Your task to perform on an android device: Open ESPN.com Image 0: 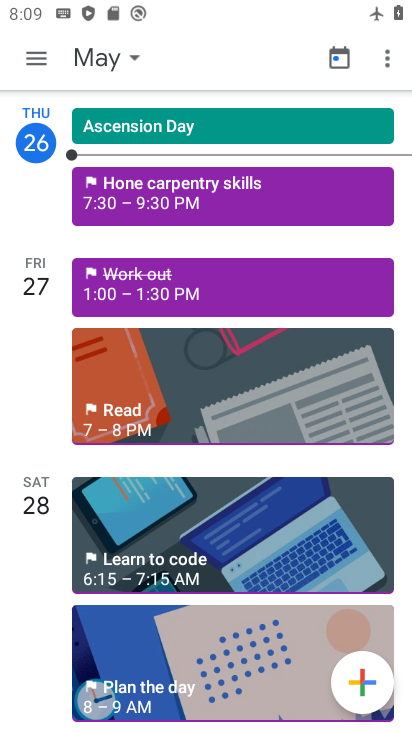
Step 0: press home button
Your task to perform on an android device: Open ESPN.com Image 1: 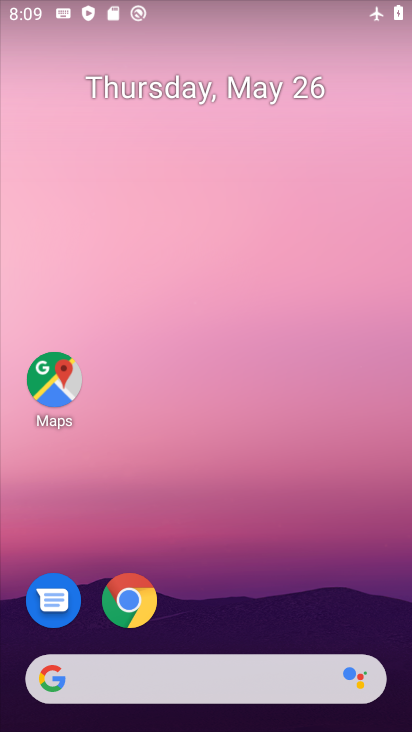
Step 1: click (180, 678)
Your task to perform on an android device: Open ESPN.com Image 2: 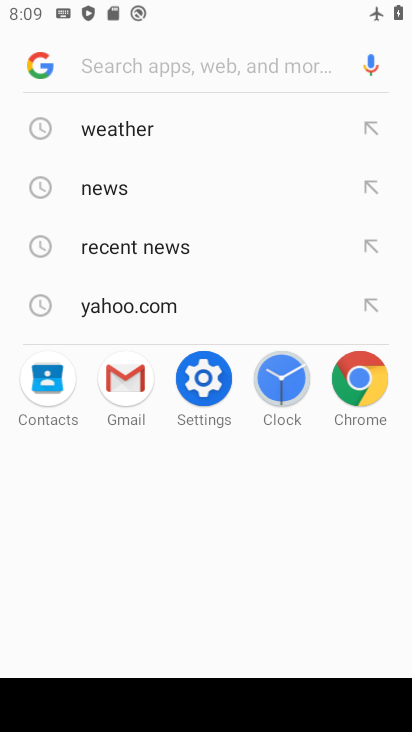
Step 2: type "espn"
Your task to perform on an android device: Open ESPN.com Image 3: 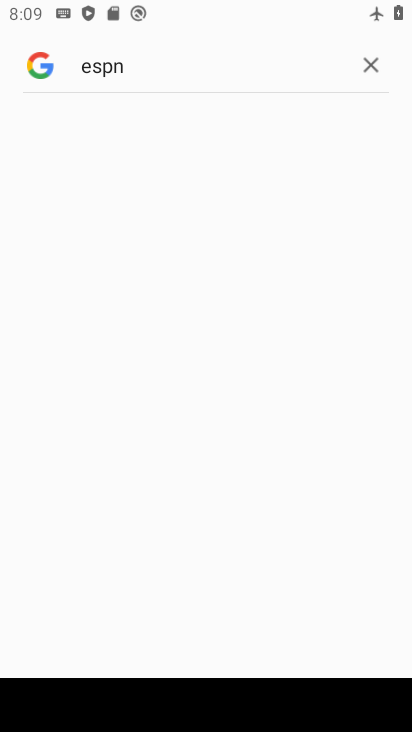
Step 3: drag from (240, 6) to (202, 668)
Your task to perform on an android device: Open ESPN.com Image 4: 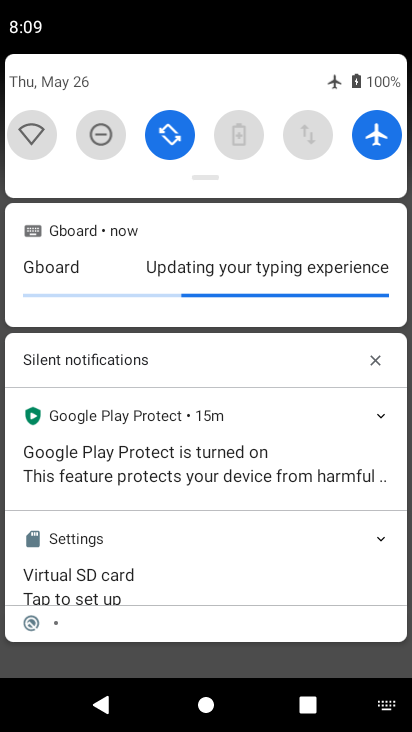
Step 4: click (364, 151)
Your task to perform on an android device: Open ESPN.com Image 5: 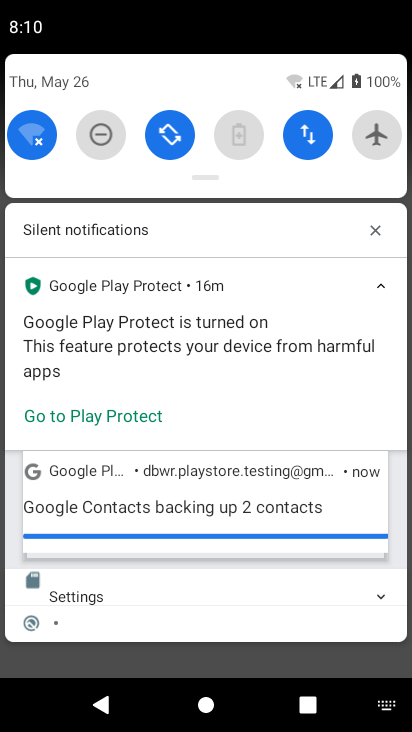
Step 5: task complete